Your task to perform on an android device: Open the phone app and click the voicemail tab. Image 0: 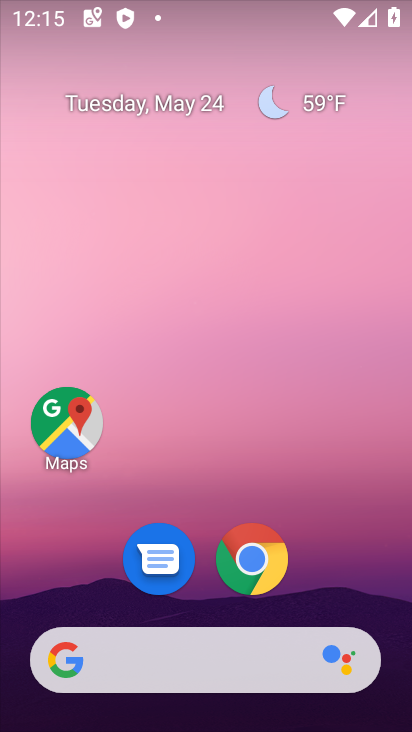
Step 0: drag from (395, 700) to (280, 253)
Your task to perform on an android device: Open the phone app and click the voicemail tab. Image 1: 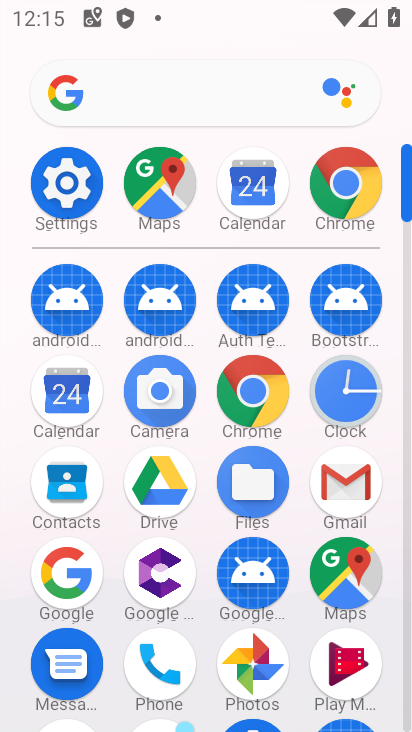
Step 1: click (162, 677)
Your task to perform on an android device: Open the phone app and click the voicemail tab. Image 2: 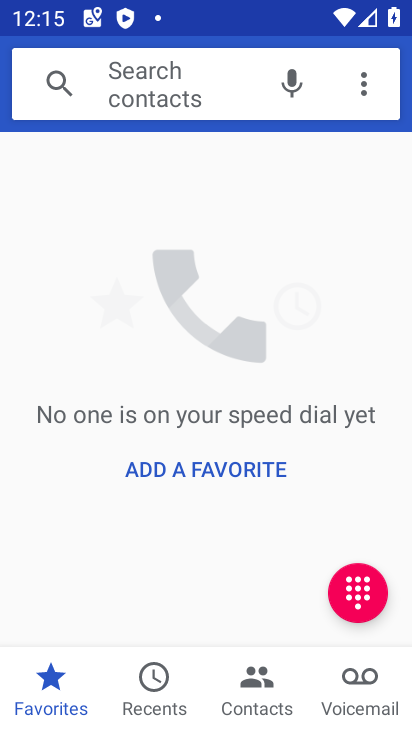
Step 2: click (365, 699)
Your task to perform on an android device: Open the phone app and click the voicemail tab. Image 3: 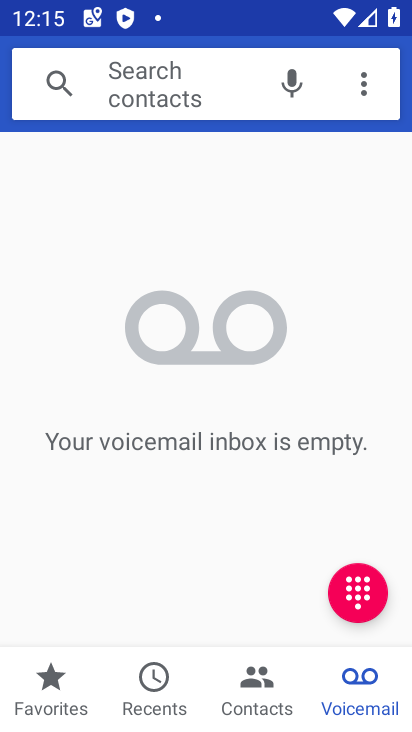
Step 3: task complete